Your task to perform on an android device: Show me productivity apps on the Play Store Image 0: 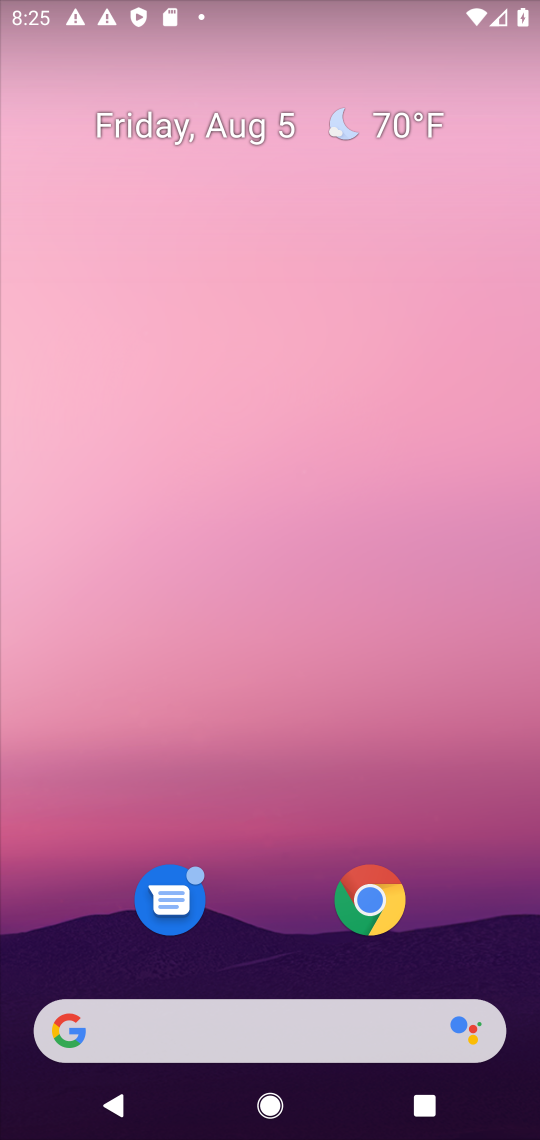
Step 0: drag from (237, 949) to (253, 163)
Your task to perform on an android device: Show me productivity apps on the Play Store Image 1: 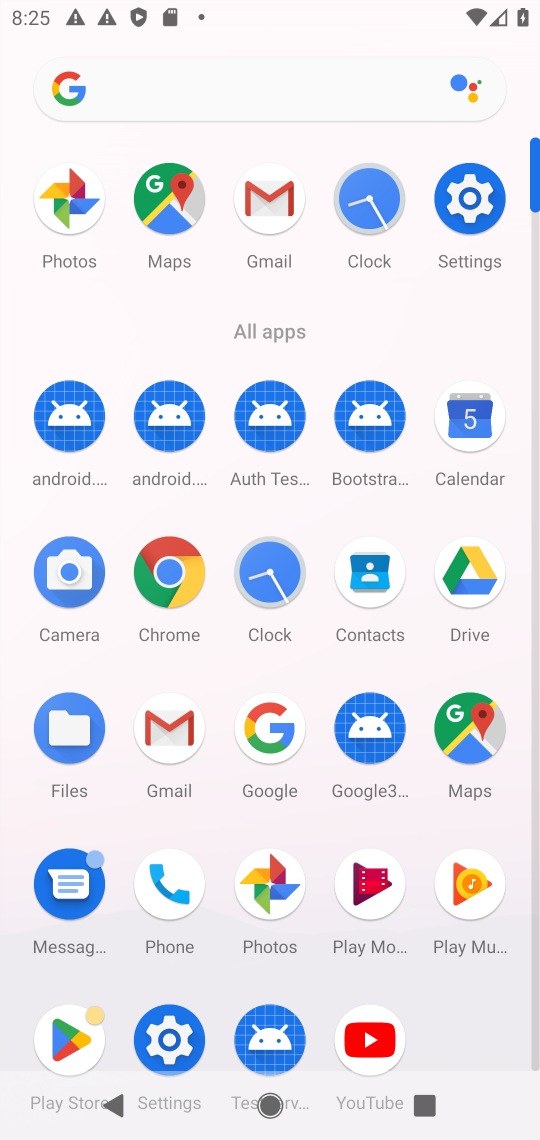
Step 1: click (70, 1026)
Your task to perform on an android device: Show me productivity apps on the Play Store Image 2: 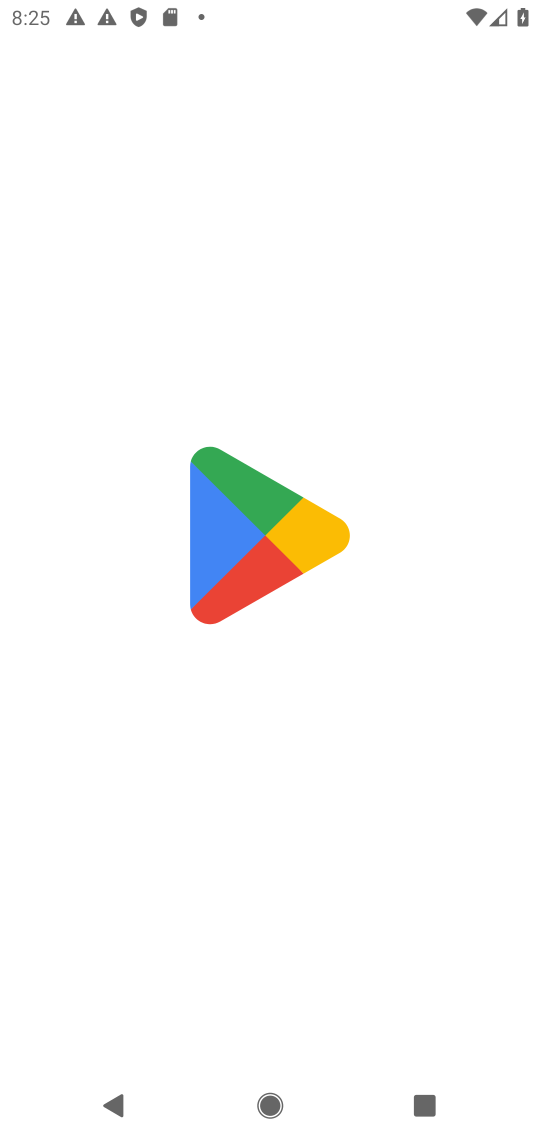
Step 2: click (70, 1026)
Your task to perform on an android device: Show me productivity apps on the Play Store Image 3: 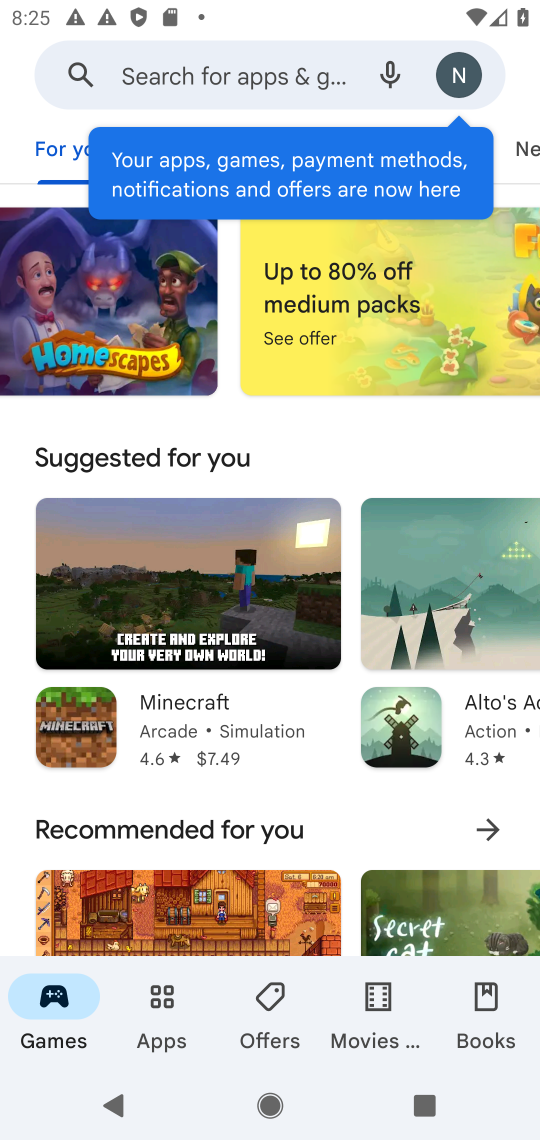
Step 3: click (137, 72)
Your task to perform on an android device: Show me productivity apps on the Play Store Image 4: 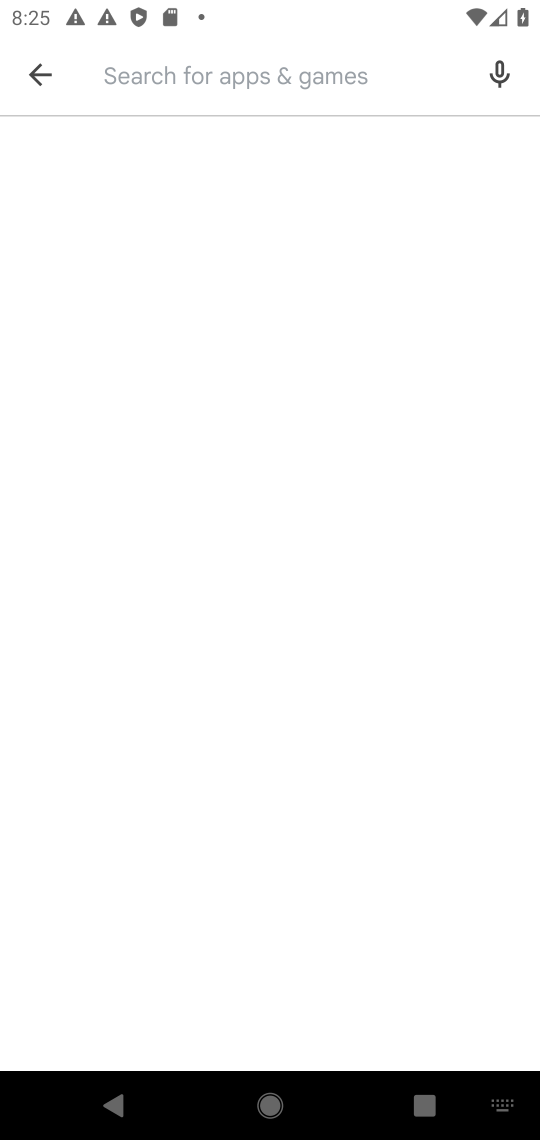
Step 4: type "productivity apps "
Your task to perform on an android device: Show me productivity apps on the Play Store Image 5: 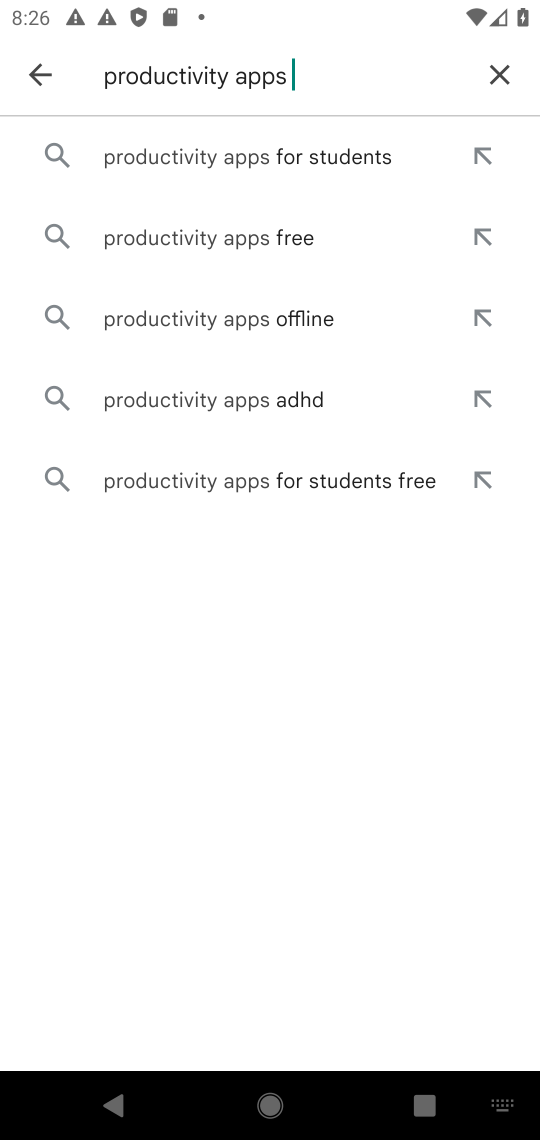
Step 5: click (213, 231)
Your task to perform on an android device: Show me productivity apps on the Play Store Image 6: 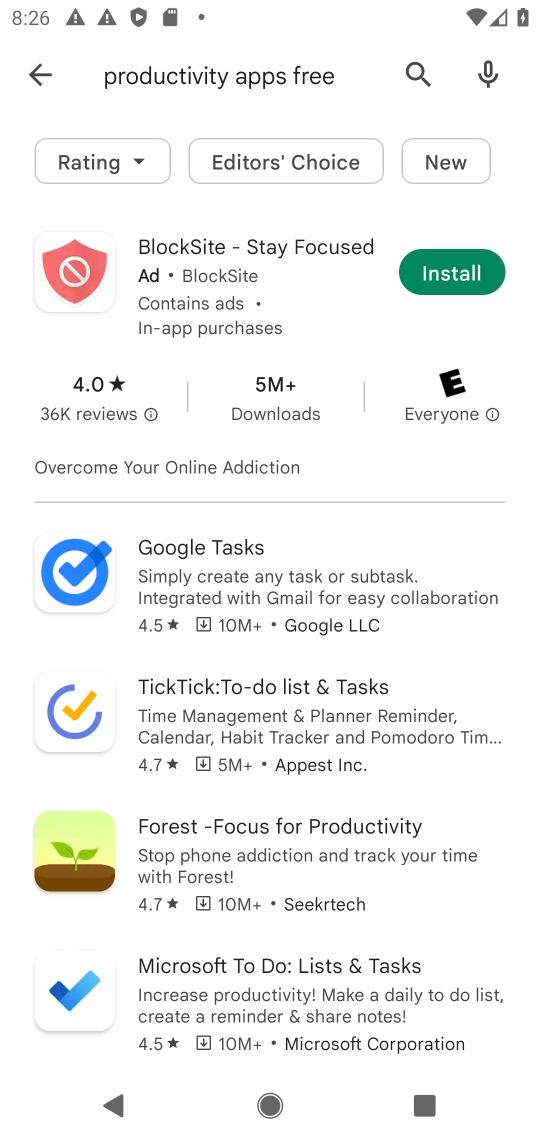
Step 6: task complete